Your task to perform on an android device: turn on location history Image 0: 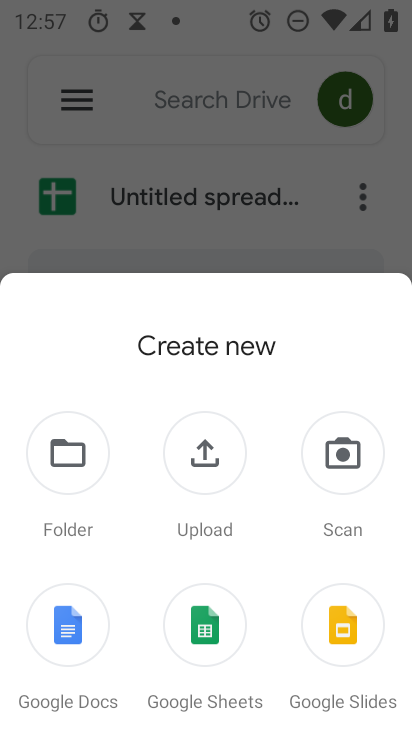
Step 0: press home button
Your task to perform on an android device: turn on location history Image 1: 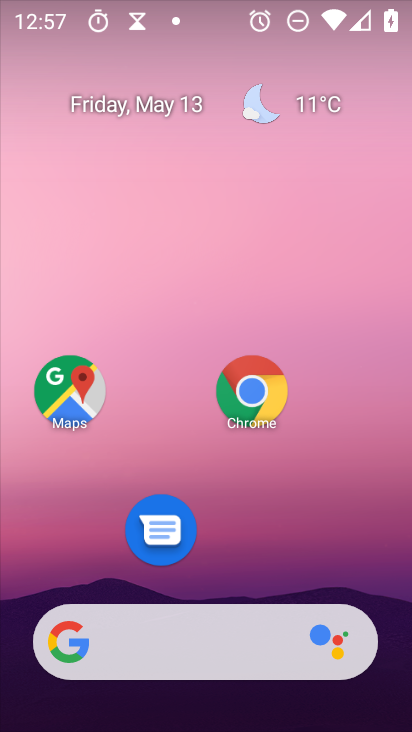
Step 1: drag from (155, 658) to (258, 228)
Your task to perform on an android device: turn on location history Image 2: 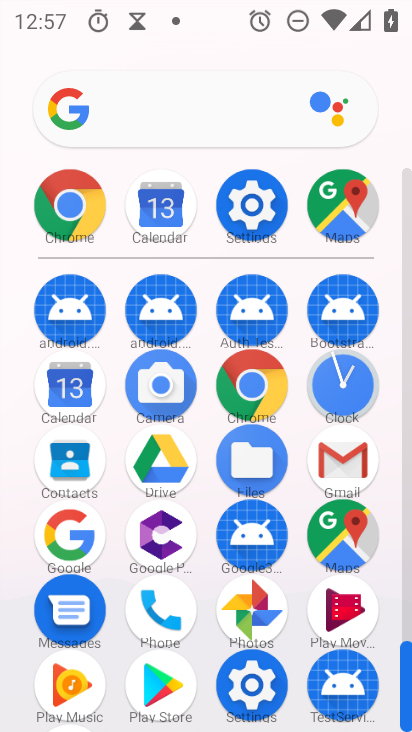
Step 2: click (351, 218)
Your task to perform on an android device: turn on location history Image 3: 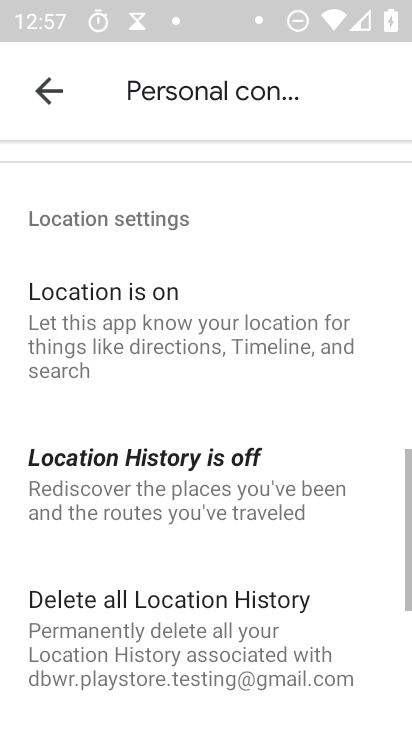
Step 3: click (173, 470)
Your task to perform on an android device: turn on location history Image 4: 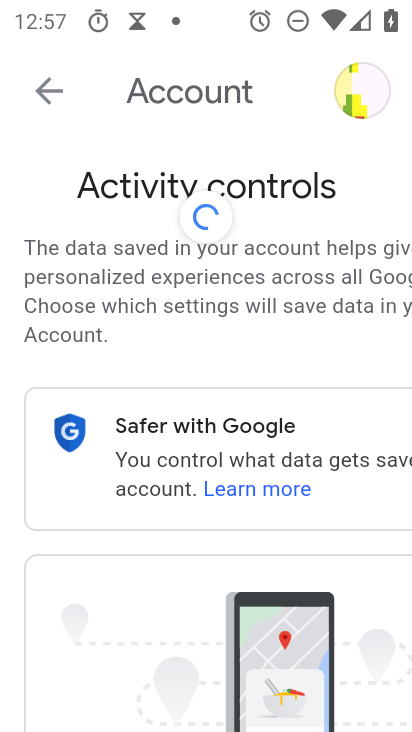
Step 4: task complete